Your task to perform on an android device: toggle wifi Image 0: 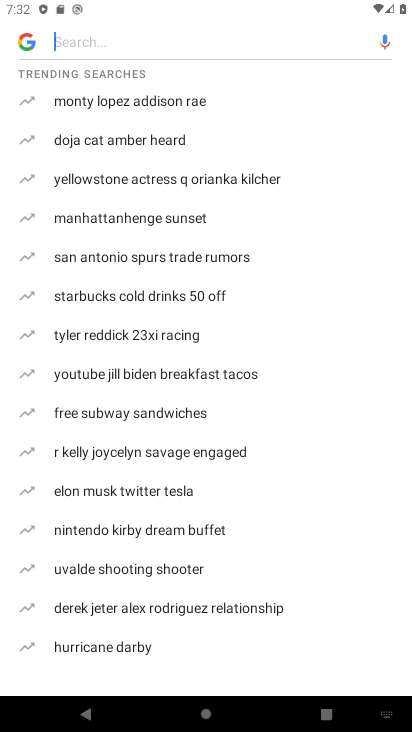
Step 0: press home button
Your task to perform on an android device: toggle wifi Image 1: 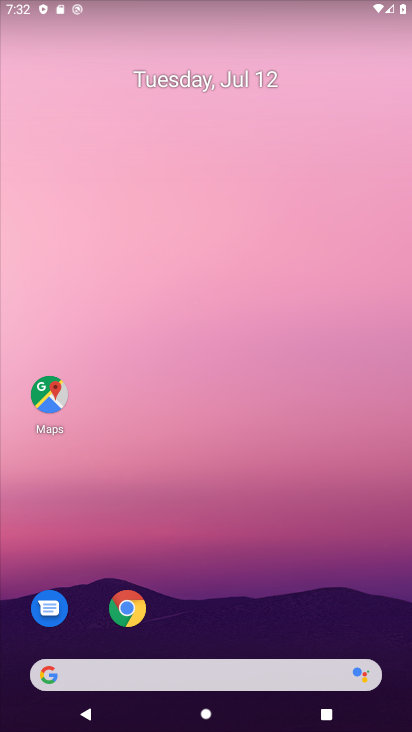
Step 1: drag from (198, 678) to (382, 273)
Your task to perform on an android device: toggle wifi Image 2: 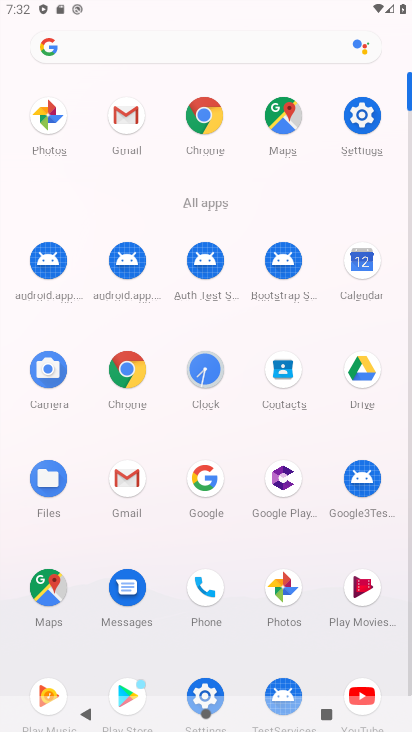
Step 2: click (365, 119)
Your task to perform on an android device: toggle wifi Image 3: 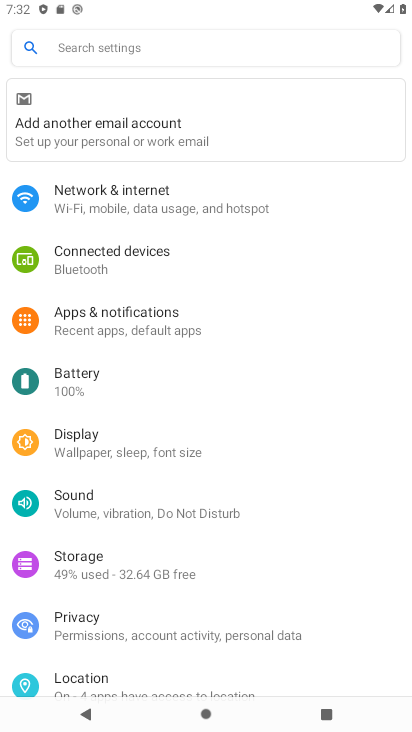
Step 3: click (141, 195)
Your task to perform on an android device: toggle wifi Image 4: 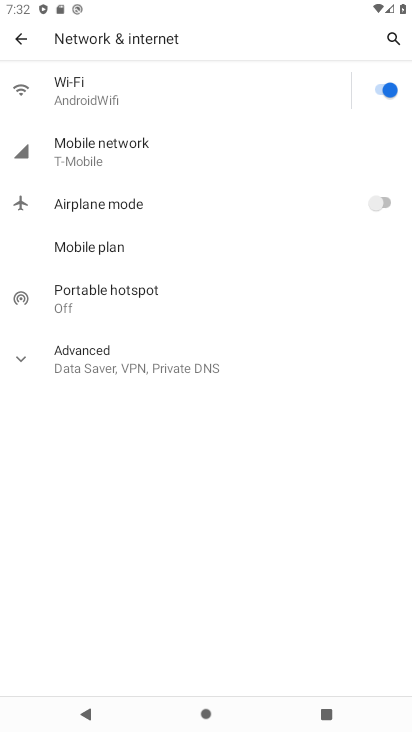
Step 4: click (378, 85)
Your task to perform on an android device: toggle wifi Image 5: 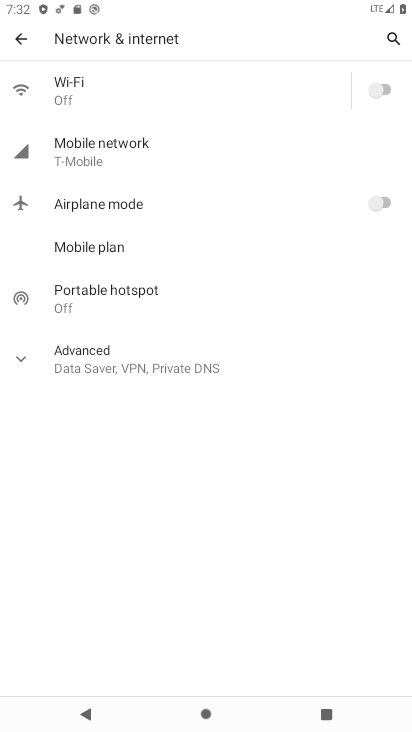
Step 5: task complete